Your task to perform on an android device: stop showing notifications on the lock screen Image 0: 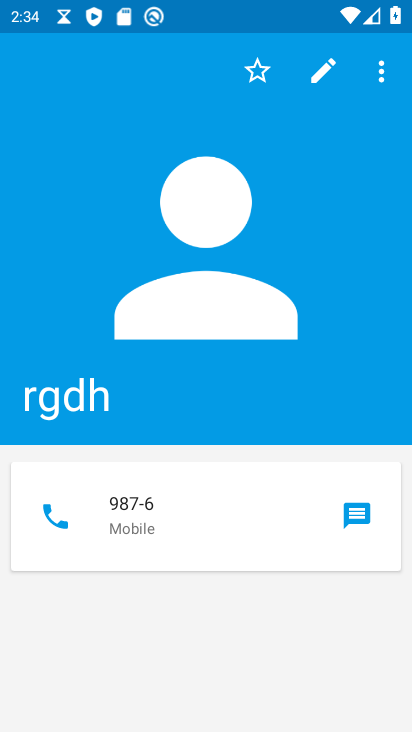
Step 0: press home button
Your task to perform on an android device: stop showing notifications on the lock screen Image 1: 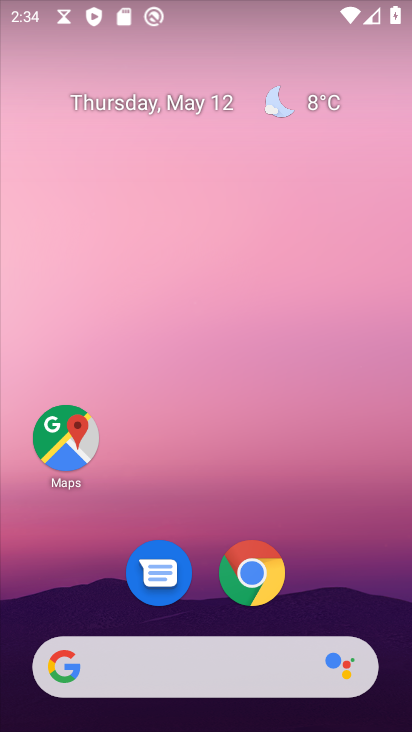
Step 1: drag from (313, 597) to (219, 111)
Your task to perform on an android device: stop showing notifications on the lock screen Image 2: 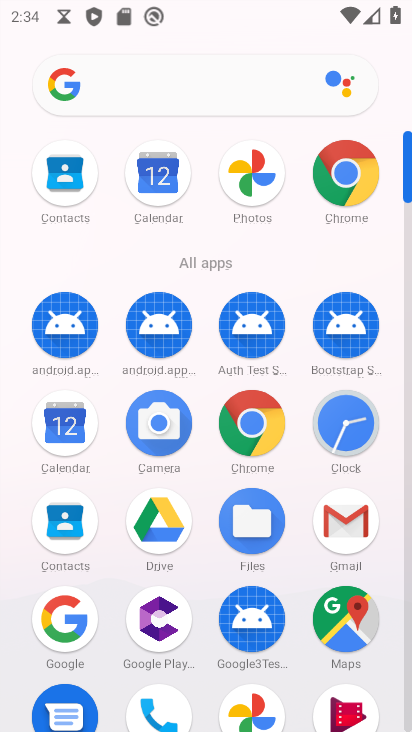
Step 2: drag from (262, 244) to (262, 24)
Your task to perform on an android device: stop showing notifications on the lock screen Image 3: 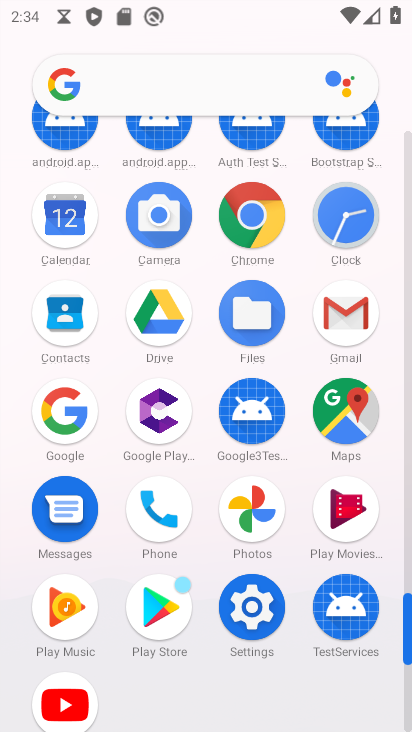
Step 3: click (252, 616)
Your task to perform on an android device: stop showing notifications on the lock screen Image 4: 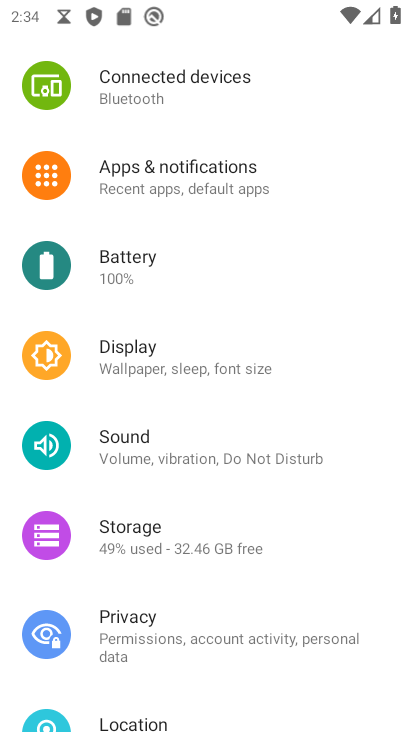
Step 4: click (130, 170)
Your task to perform on an android device: stop showing notifications on the lock screen Image 5: 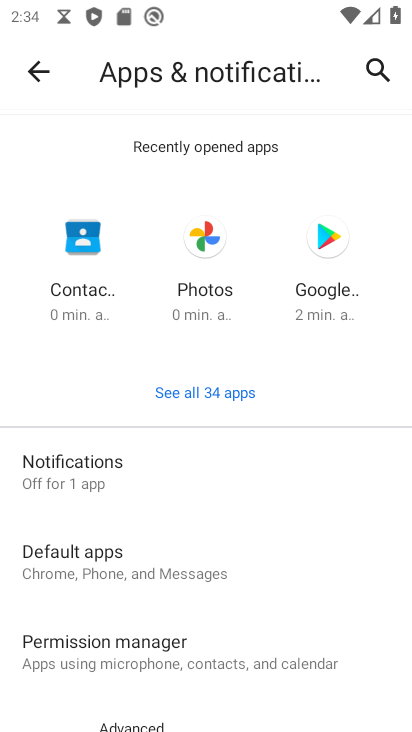
Step 5: click (55, 460)
Your task to perform on an android device: stop showing notifications on the lock screen Image 6: 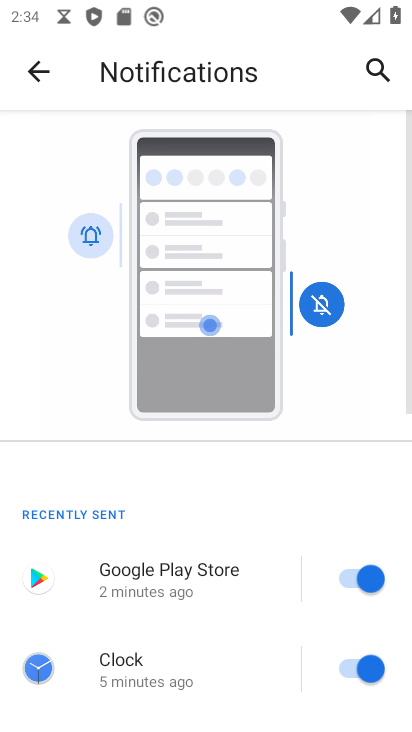
Step 6: drag from (324, 535) to (332, 104)
Your task to perform on an android device: stop showing notifications on the lock screen Image 7: 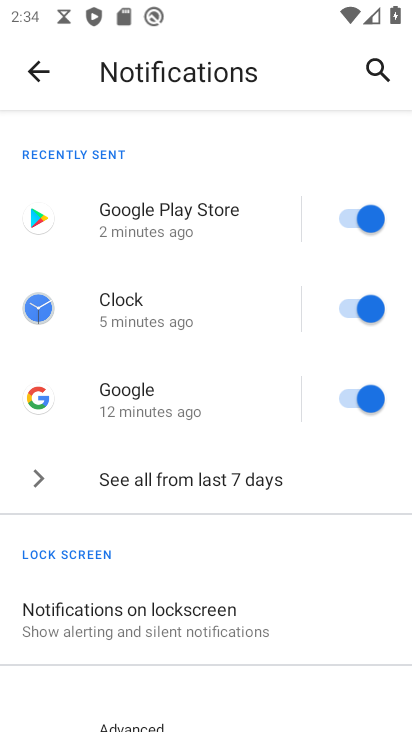
Step 7: click (127, 605)
Your task to perform on an android device: stop showing notifications on the lock screen Image 8: 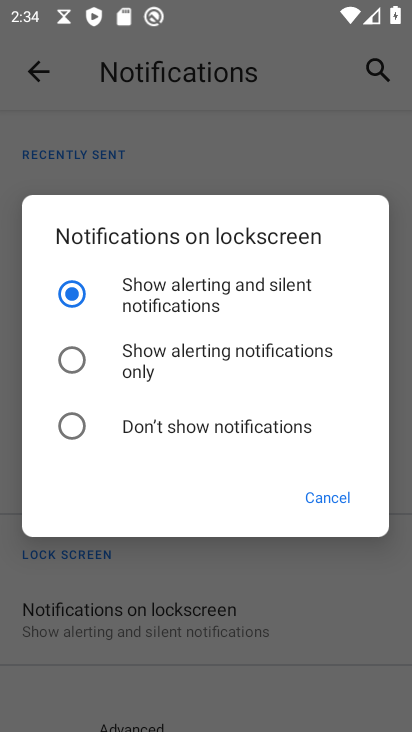
Step 8: click (160, 417)
Your task to perform on an android device: stop showing notifications on the lock screen Image 9: 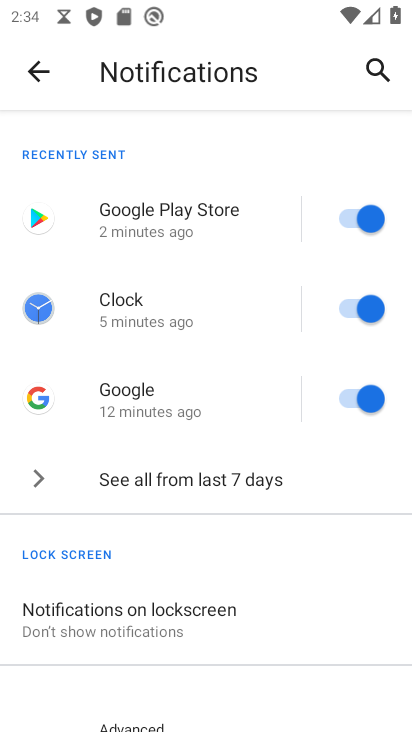
Step 9: task complete